Your task to perform on an android device: What's the weather going to be tomorrow? Image 0: 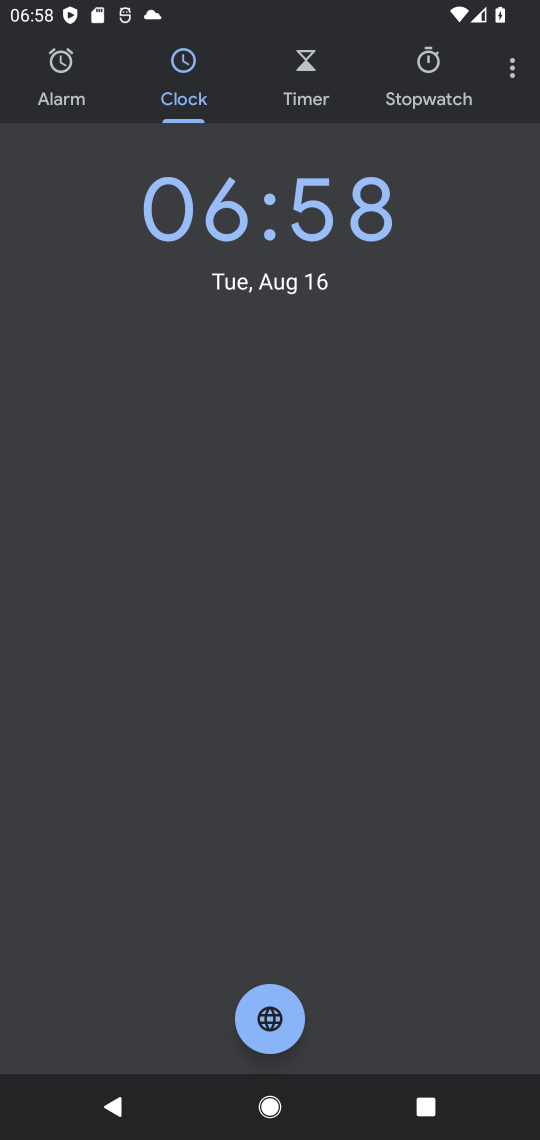
Step 0: press home button
Your task to perform on an android device: What's the weather going to be tomorrow? Image 1: 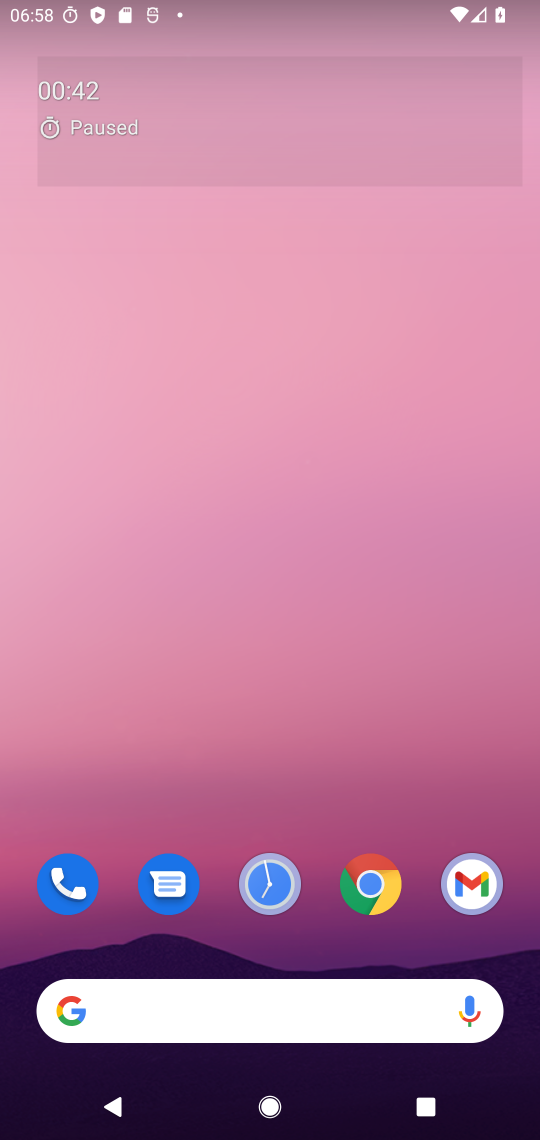
Step 1: click (61, 1015)
Your task to perform on an android device: What's the weather going to be tomorrow? Image 2: 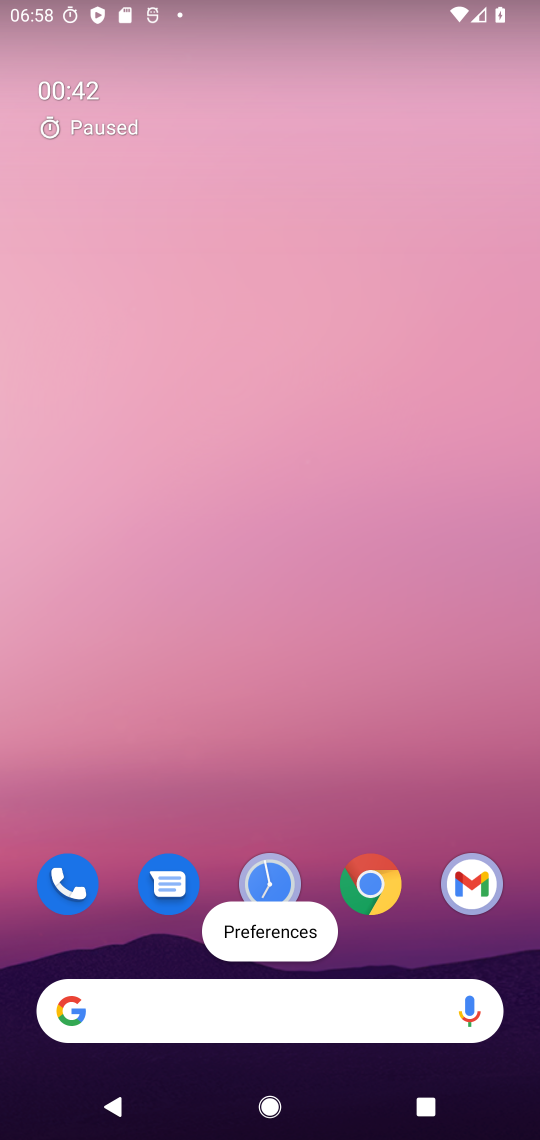
Step 2: click (75, 1023)
Your task to perform on an android device: What's the weather going to be tomorrow? Image 3: 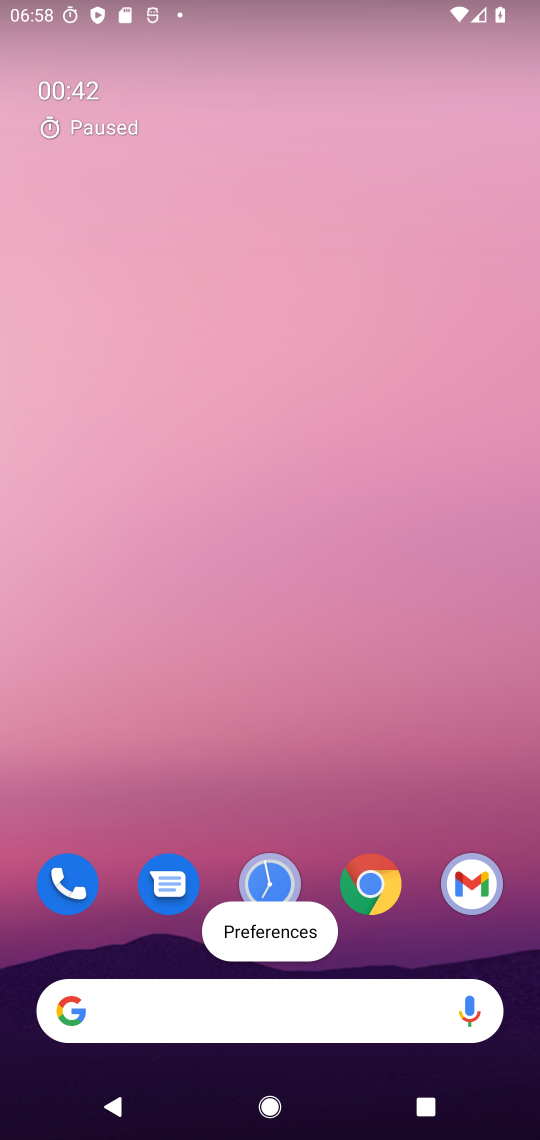
Step 3: click (74, 1016)
Your task to perform on an android device: What's the weather going to be tomorrow? Image 4: 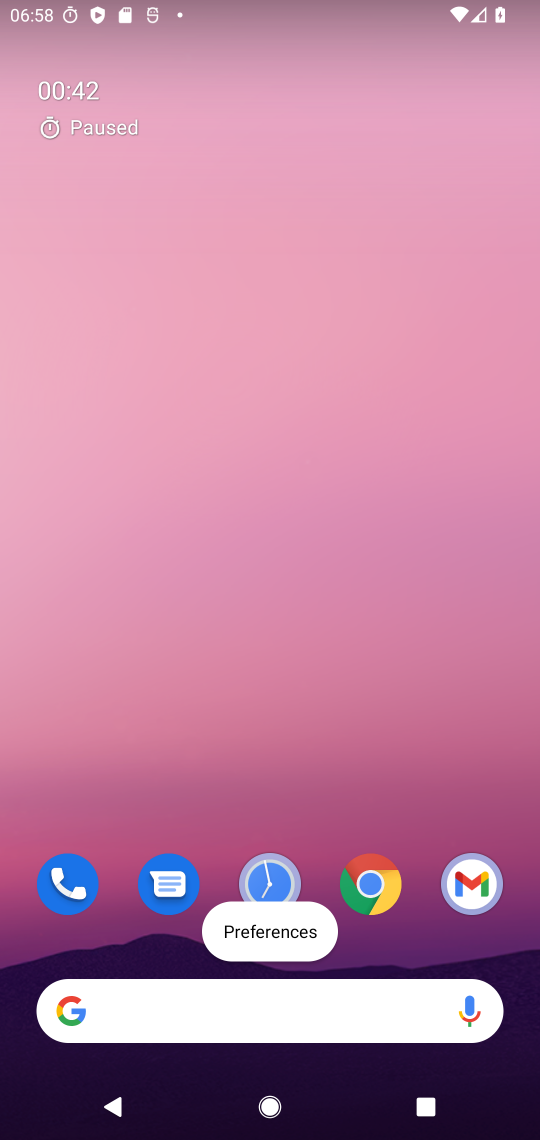
Step 4: click (100, 1017)
Your task to perform on an android device: What's the weather going to be tomorrow? Image 5: 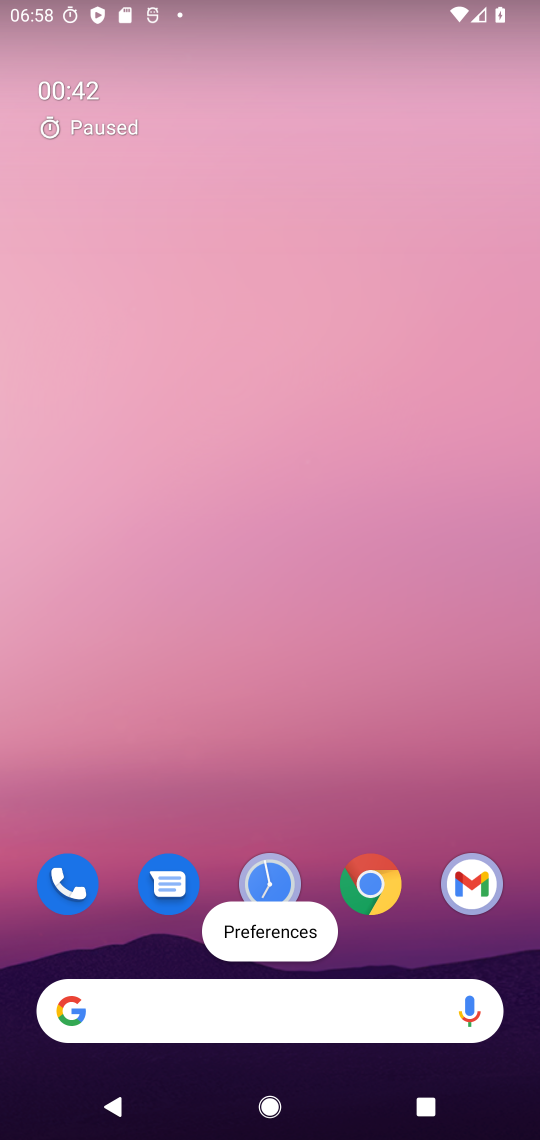
Step 5: click (68, 1011)
Your task to perform on an android device: What's the weather going to be tomorrow? Image 6: 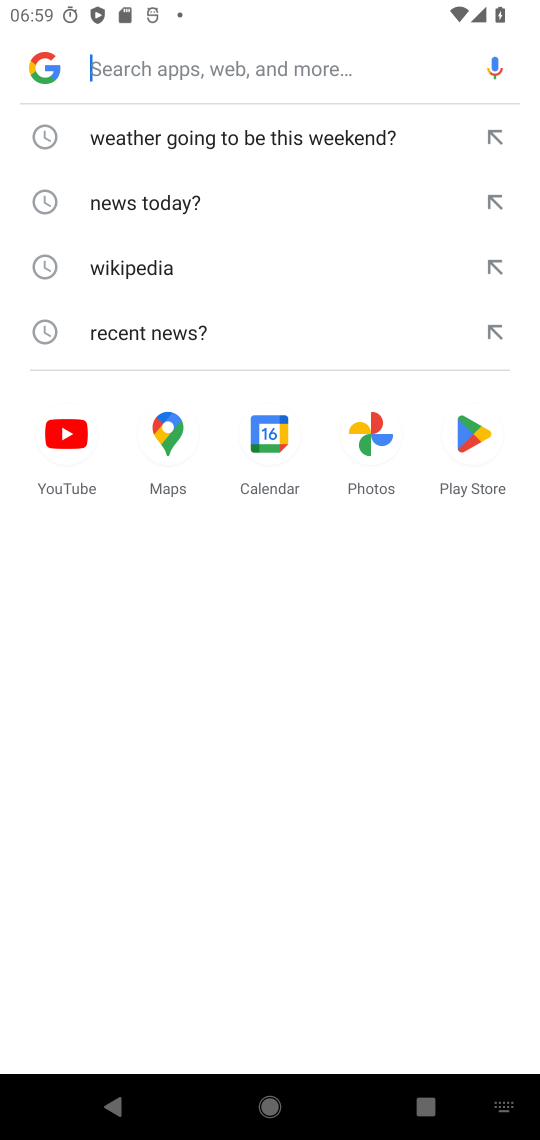
Step 6: type "weather going to be tomorrow?"
Your task to perform on an android device: What's the weather going to be tomorrow? Image 7: 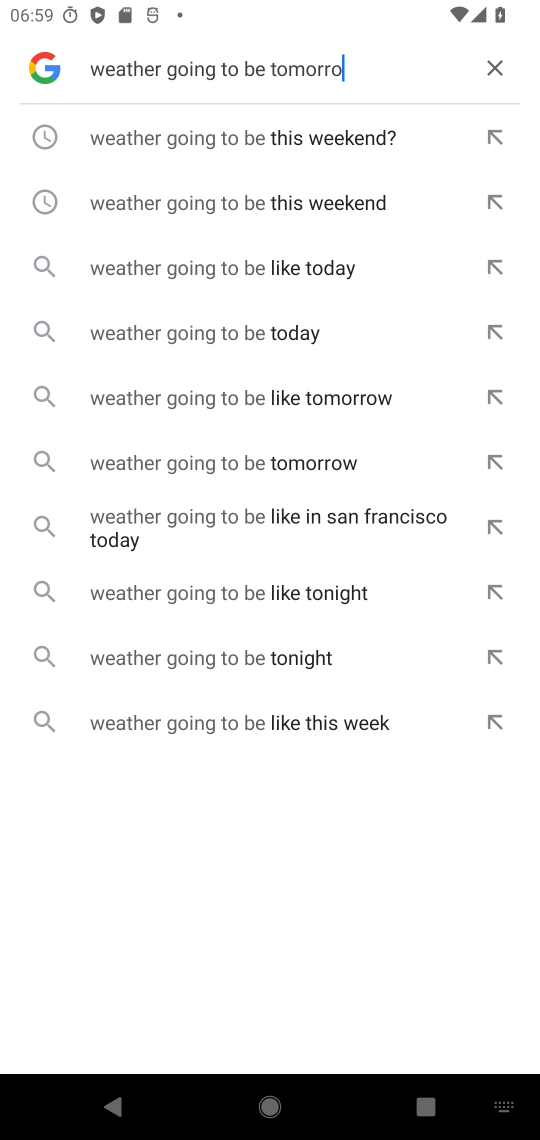
Step 7: press enter
Your task to perform on an android device: What's the weather going to be tomorrow? Image 8: 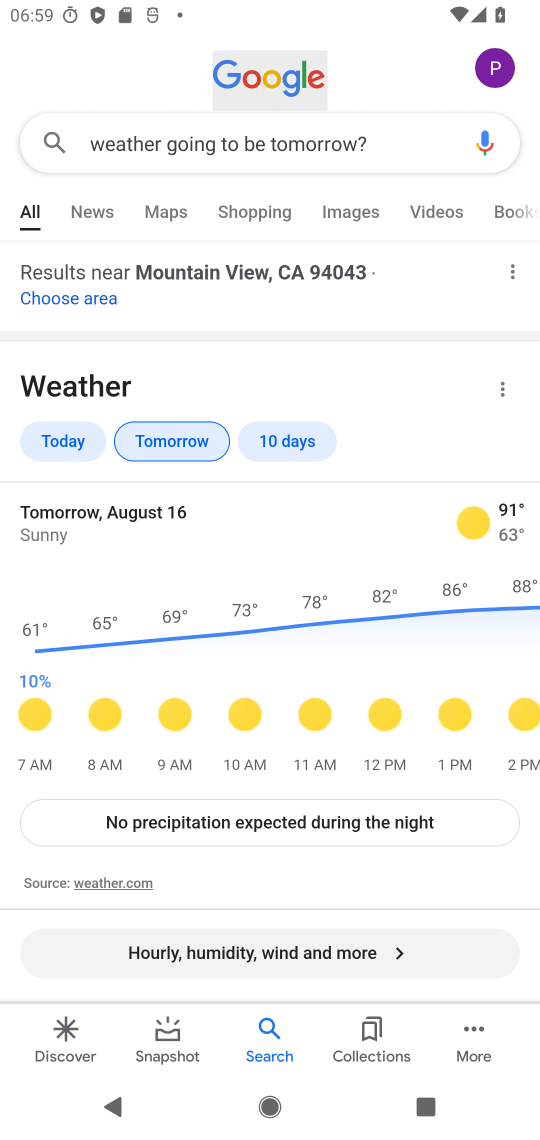
Step 8: task complete